Your task to perform on an android device: delete location history Image 0: 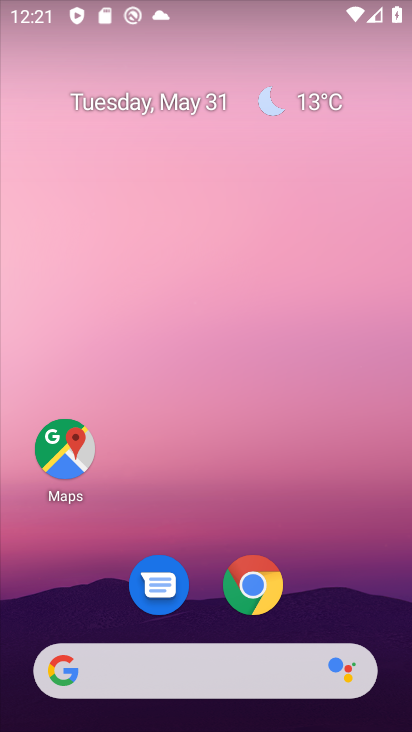
Step 0: drag from (223, 492) to (260, 31)
Your task to perform on an android device: delete location history Image 1: 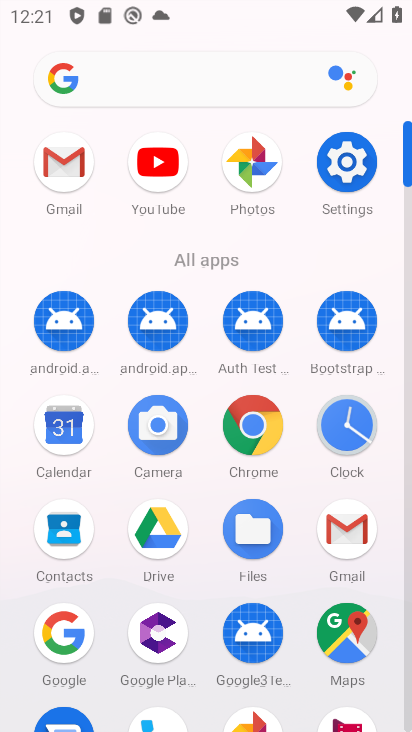
Step 1: click (345, 632)
Your task to perform on an android device: delete location history Image 2: 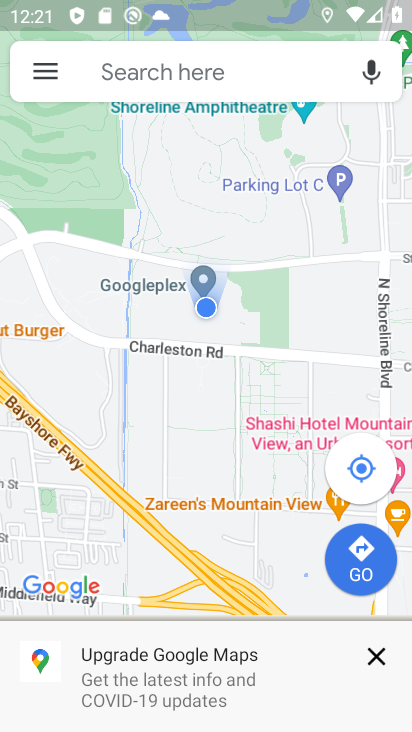
Step 2: click (48, 69)
Your task to perform on an android device: delete location history Image 3: 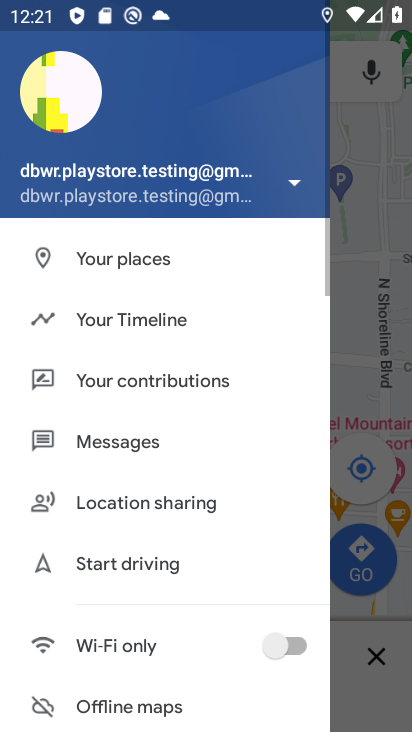
Step 3: click (121, 309)
Your task to perform on an android device: delete location history Image 4: 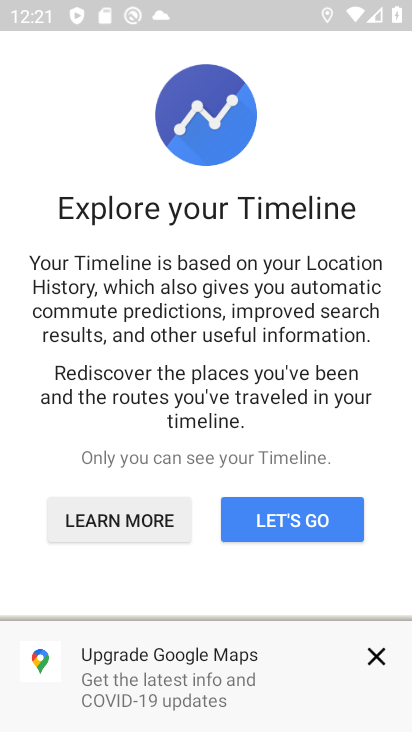
Step 4: click (291, 514)
Your task to perform on an android device: delete location history Image 5: 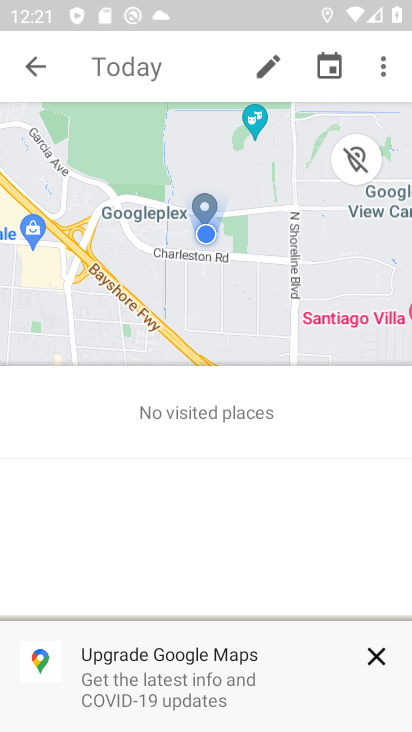
Step 5: click (378, 70)
Your task to perform on an android device: delete location history Image 6: 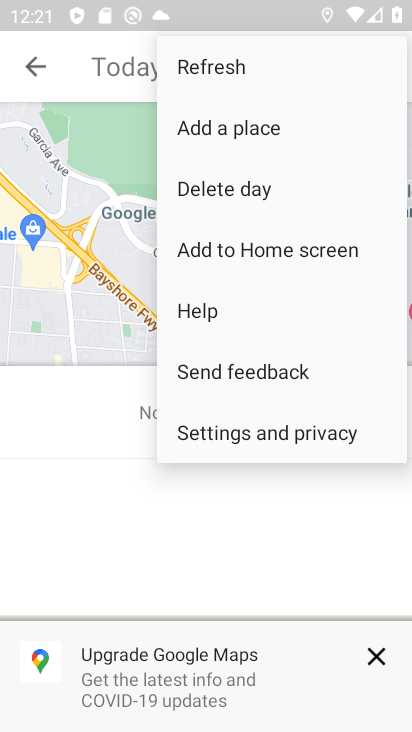
Step 6: click (301, 426)
Your task to perform on an android device: delete location history Image 7: 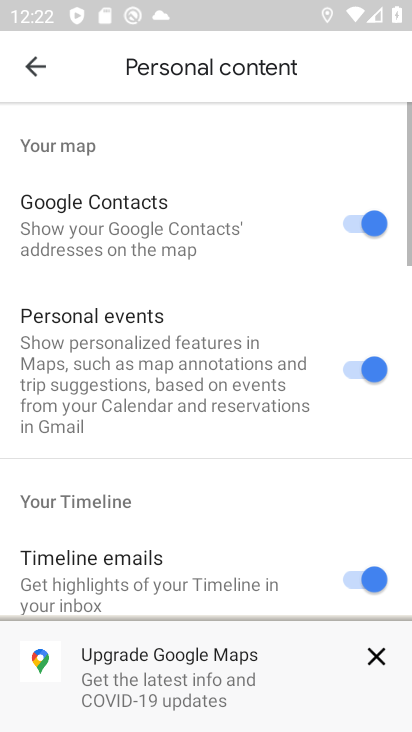
Step 7: drag from (246, 518) to (193, 93)
Your task to perform on an android device: delete location history Image 8: 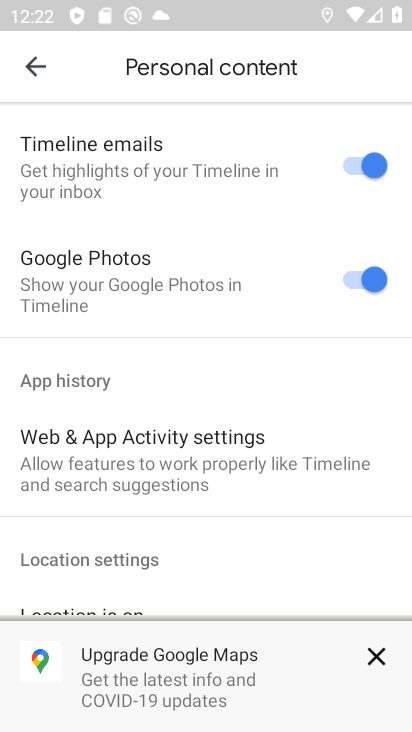
Step 8: drag from (226, 556) to (206, 117)
Your task to perform on an android device: delete location history Image 9: 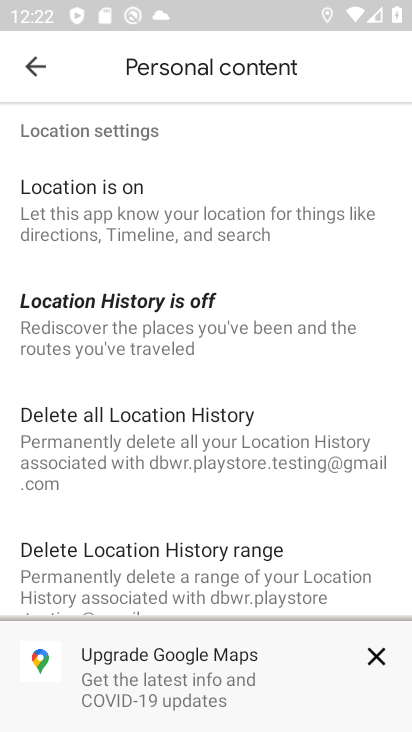
Step 9: click (177, 427)
Your task to perform on an android device: delete location history Image 10: 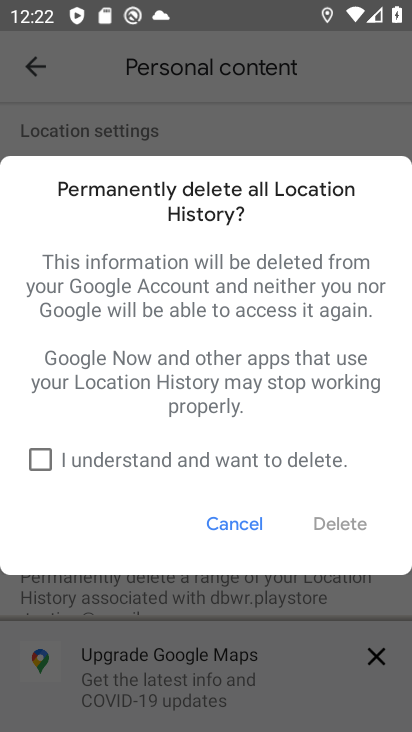
Step 10: click (37, 453)
Your task to perform on an android device: delete location history Image 11: 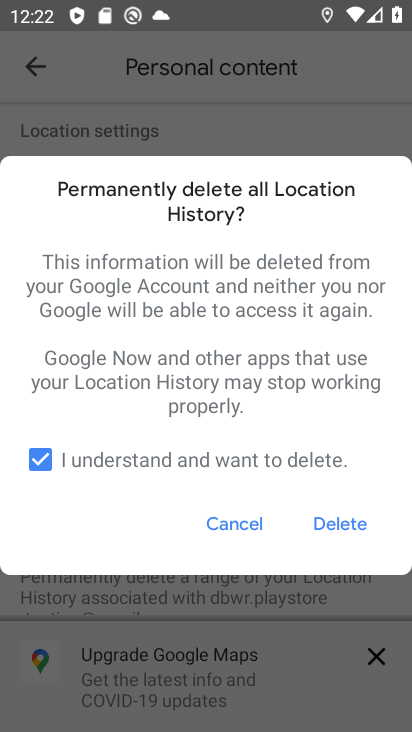
Step 11: click (336, 518)
Your task to perform on an android device: delete location history Image 12: 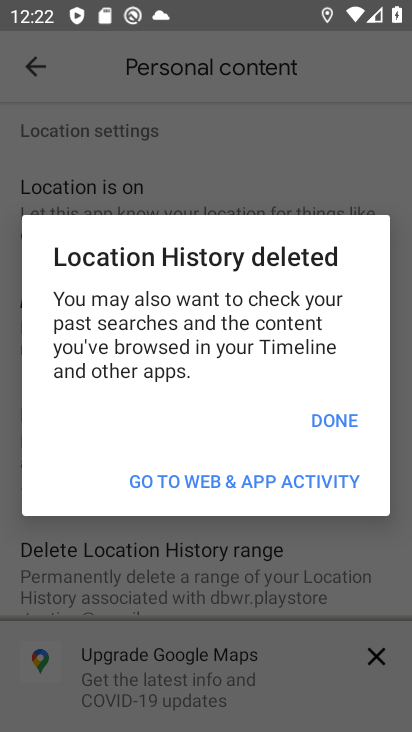
Step 12: click (329, 415)
Your task to perform on an android device: delete location history Image 13: 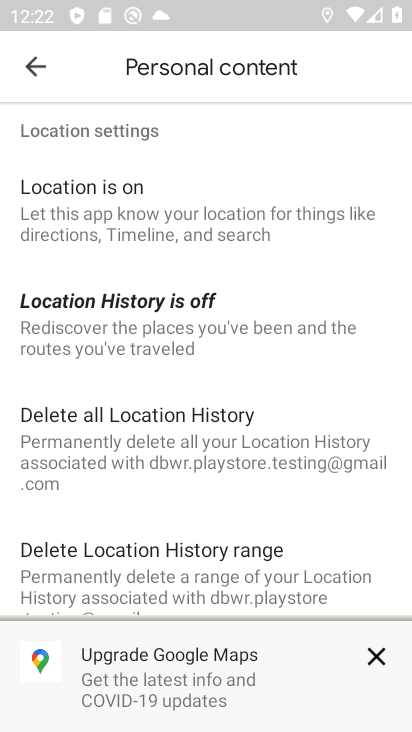
Step 13: task complete